Your task to perform on an android device: Go to settings Image 0: 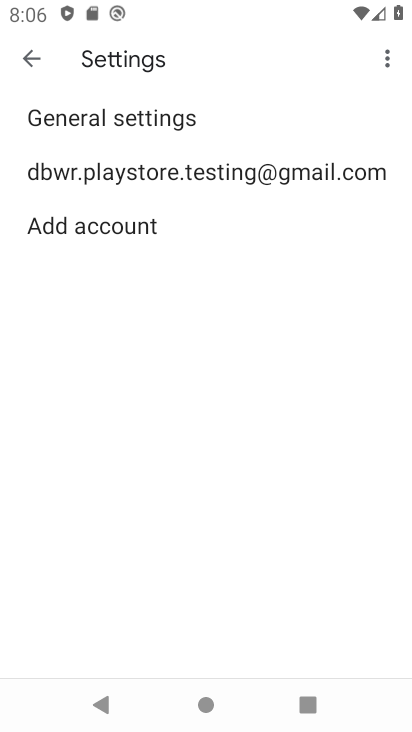
Step 0: click (27, 46)
Your task to perform on an android device: Go to settings Image 1: 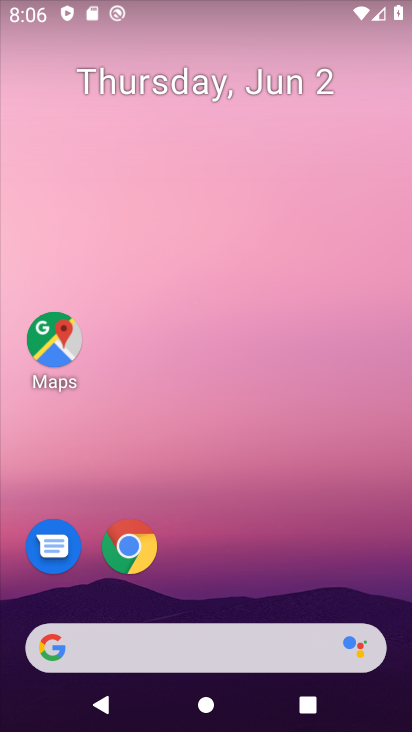
Step 1: drag from (258, 661) to (190, 6)
Your task to perform on an android device: Go to settings Image 2: 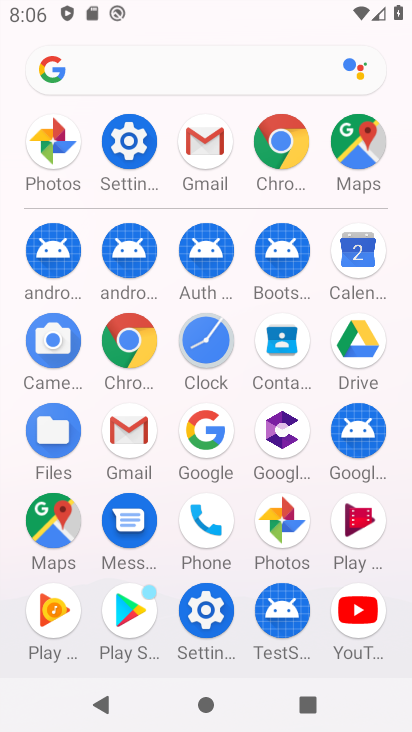
Step 2: click (130, 155)
Your task to perform on an android device: Go to settings Image 3: 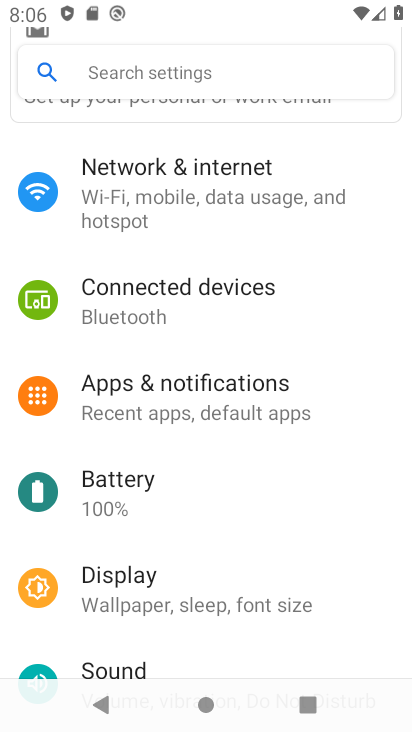
Step 3: task complete